Your task to perform on an android device: Open the stopwatch Image 0: 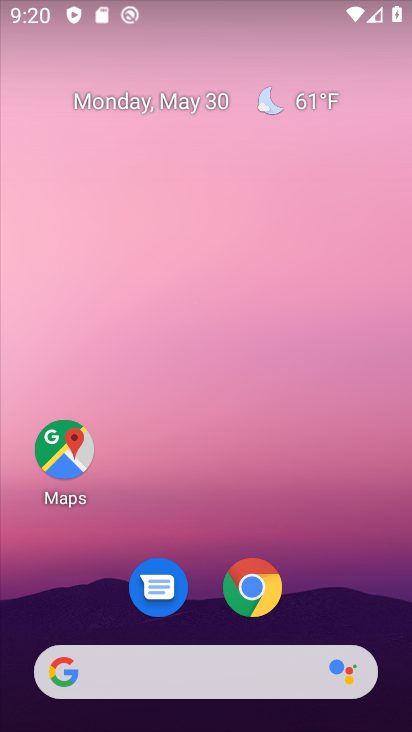
Step 0: drag from (211, 637) to (200, 18)
Your task to perform on an android device: Open the stopwatch Image 1: 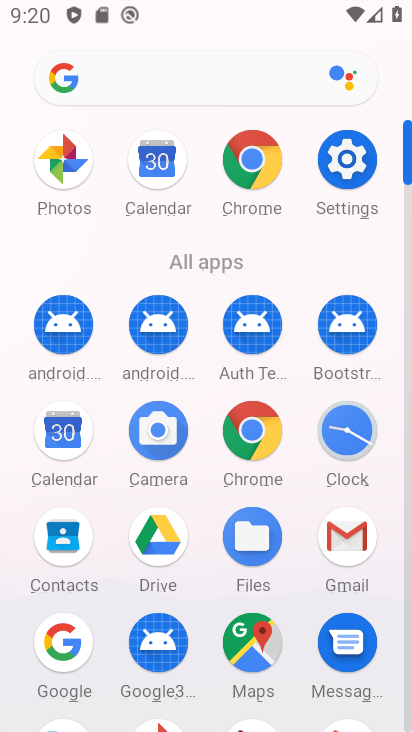
Step 1: click (338, 428)
Your task to perform on an android device: Open the stopwatch Image 2: 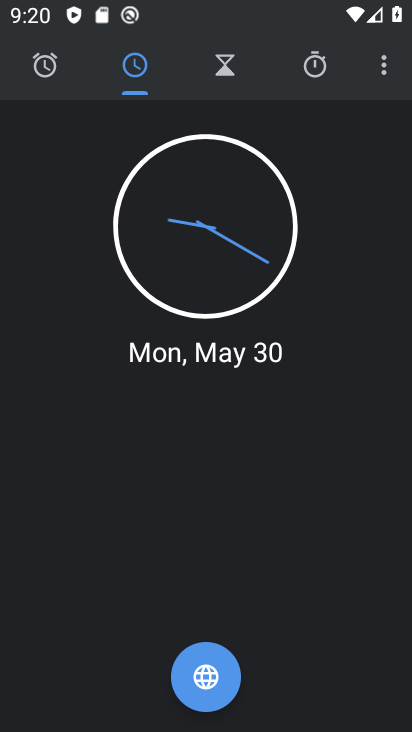
Step 2: click (316, 74)
Your task to perform on an android device: Open the stopwatch Image 3: 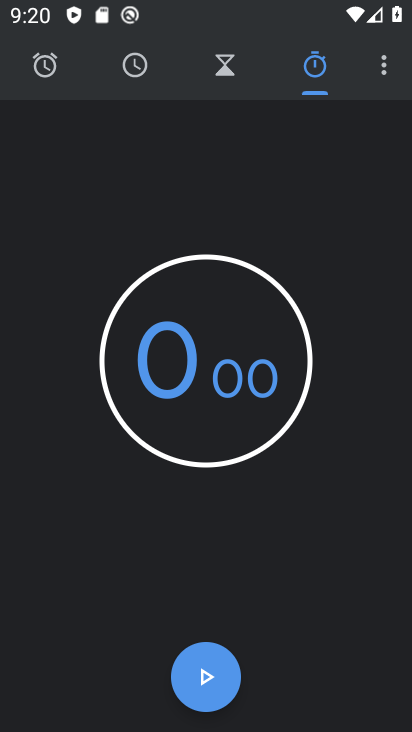
Step 3: task complete